Your task to perform on an android device: turn off javascript in the chrome app Image 0: 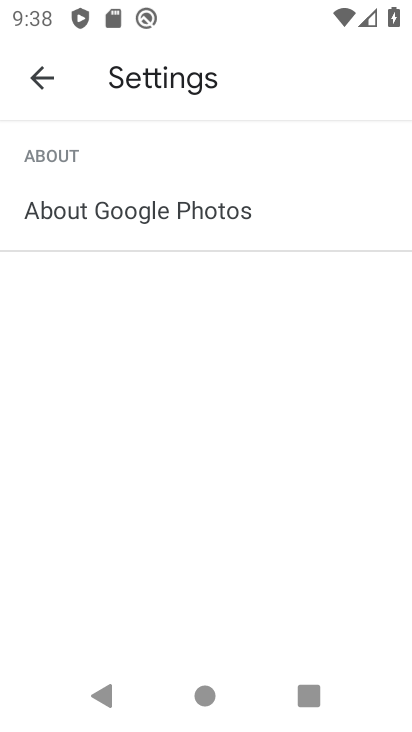
Step 0: press back button
Your task to perform on an android device: turn off javascript in the chrome app Image 1: 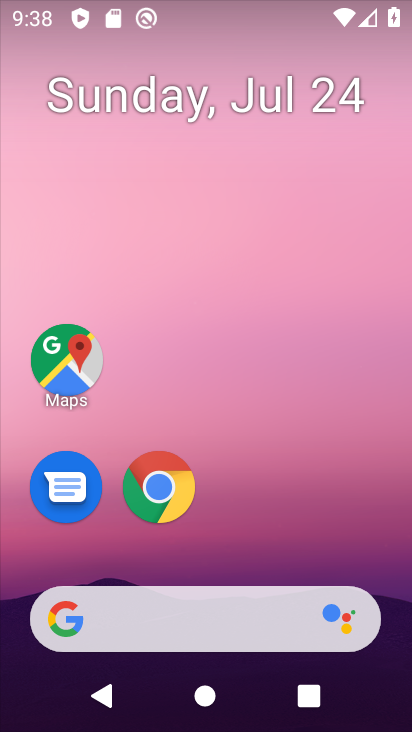
Step 1: click (170, 476)
Your task to perform on an android device: turn off javascript in the chrome app Image 2: 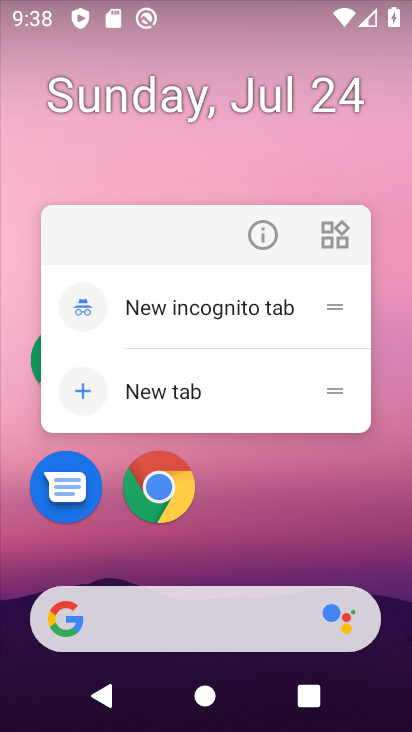
Step 2: click (166, 479)
Your task to perform on an android device: turn off javascript in the chrome app Image 3: 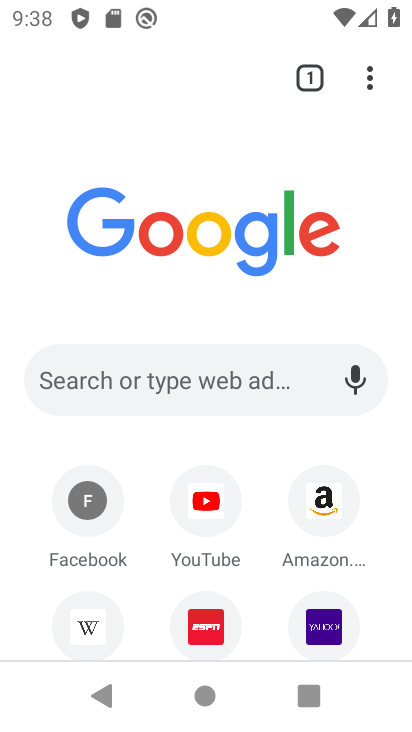
Step 3: drag from (375, 64) to (135, 528)
Your task to perform on an android device: turn off javascript in the chrome app Image 4: 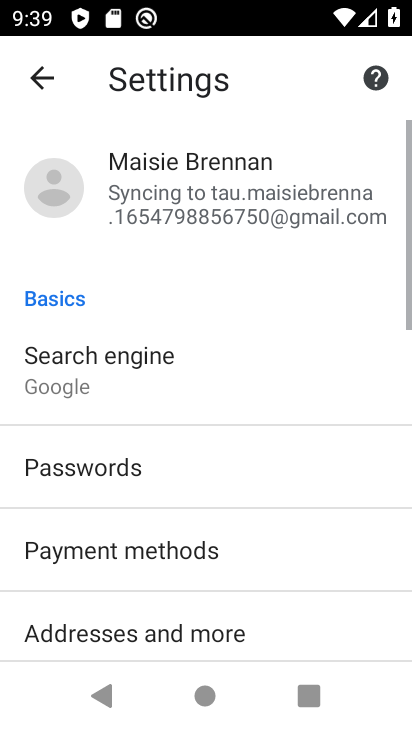
Step 4: drag from (99, 622) to (297, 50)
Your task to perform on an android device: turn off javascript in the chrome app Image 5: 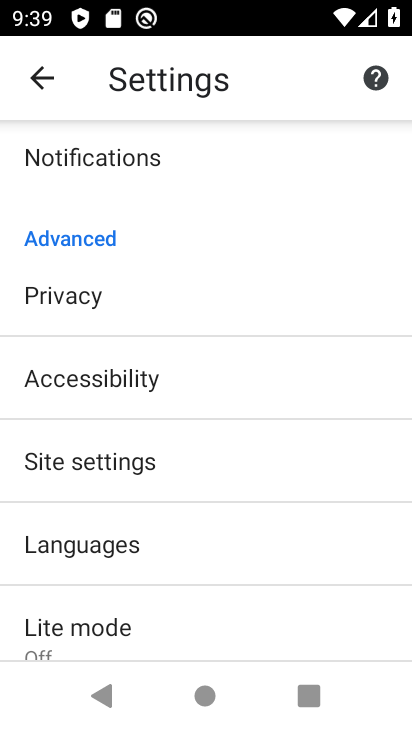
Step 5: click (74, 473)
Your task to perform on an android device: turn off javascript in the chrome app Image 6: 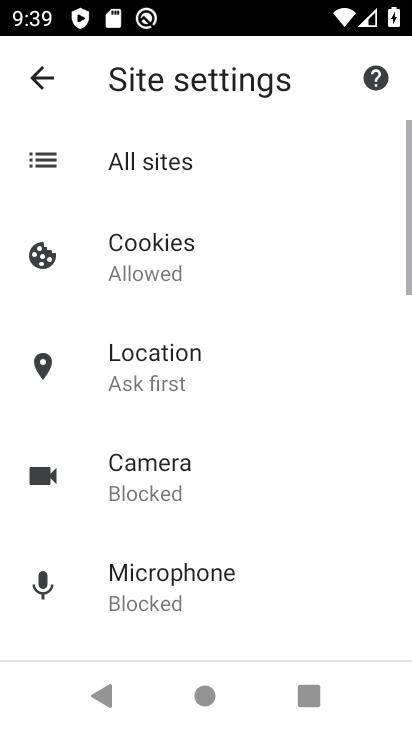
Step 6: drag from (161, 559) to (278, 89)
Your task to perform on an android device: turn off javascript in the chrome app Image 7: 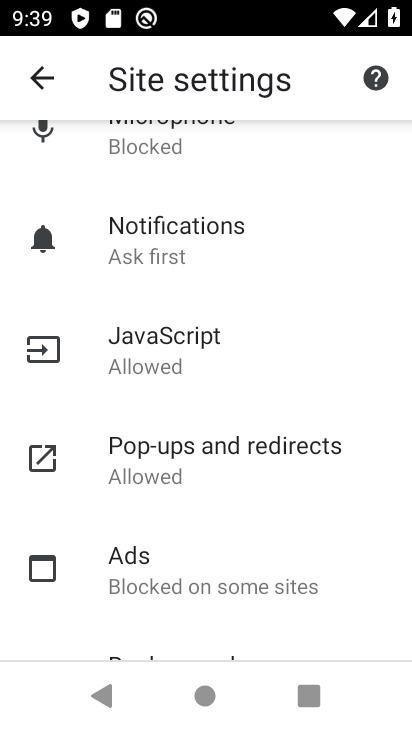
Step 7: click (176, 355)
Your task to perform on an android device: turn off javascript in the chrome app Image 8: 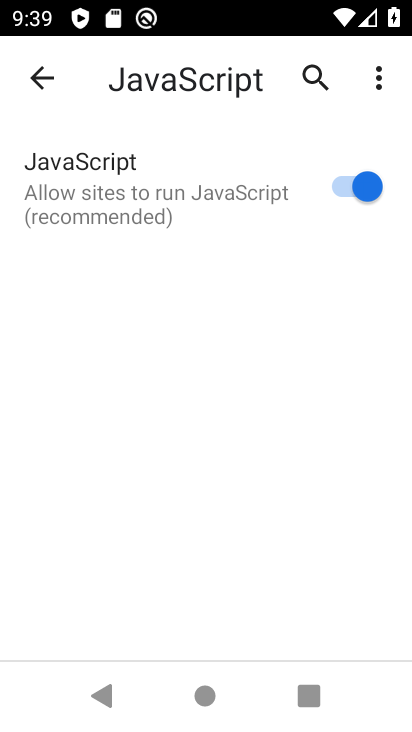
Step 8: click (357, 175)
Your task to perform on an android device: turn off javascript in the chrome app Image 9: 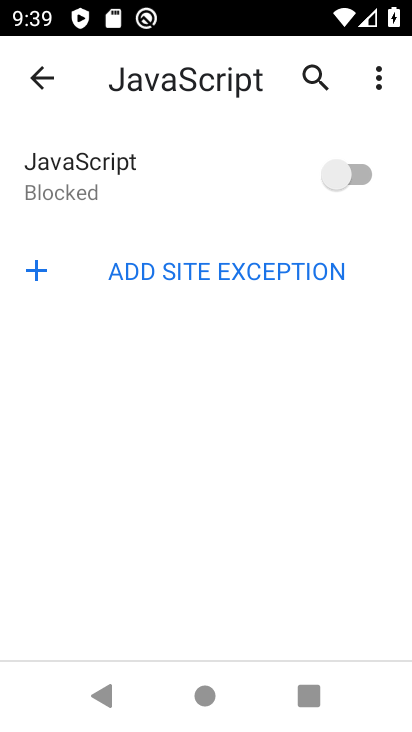
Step 9: task complete